Your task to perform on an android device: Show me popular videos on Youtube Image 0: 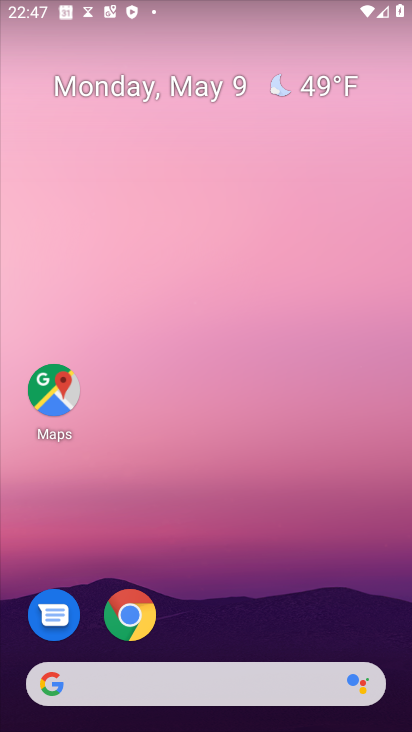
Step 0: drag from (177, 536) to (170, 103)
Your task to perform on an android device: Show me popular videos on Youtube Image 1: 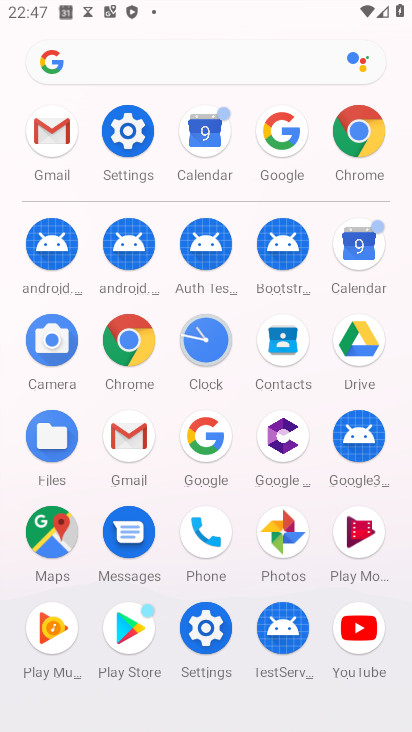
Step 1: click (352, 626)
Your task to perform on an android device: Show me popular videos on Youtube Image 2: 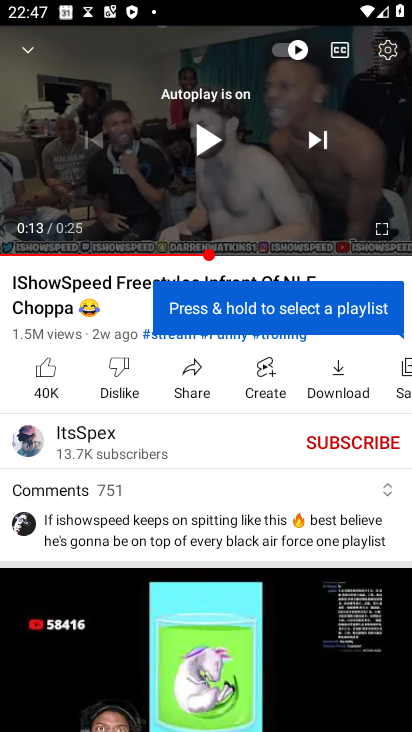
Step 2: click (26, 50)
Your task to perform on an android device: Show me popular videos on Youtube Image 3: 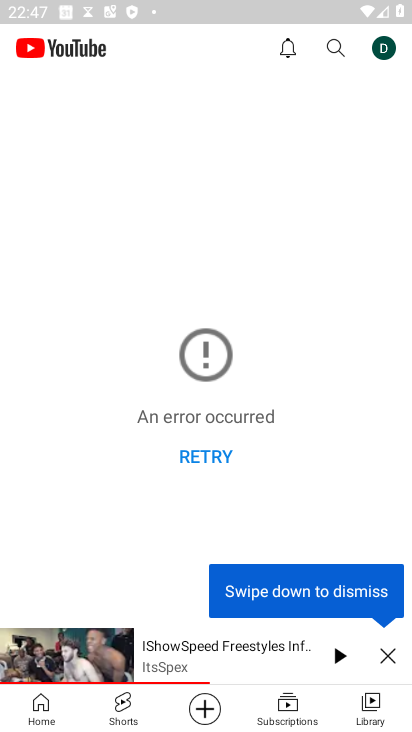
Step 3: click (391, 661)
Your task to perform on an android device: Show me popular videos on Youtube Image 4: 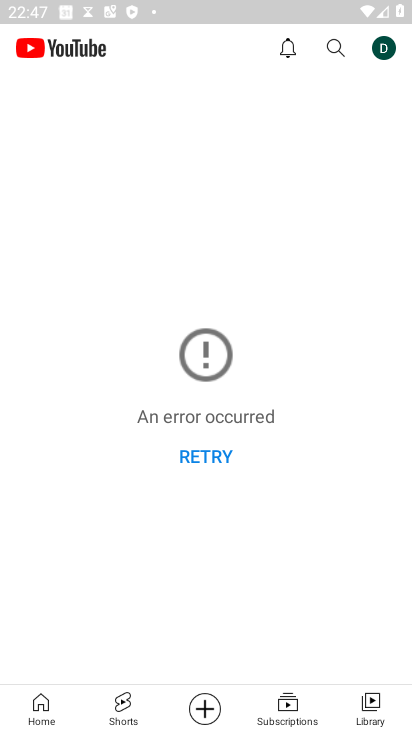
Step 4: click (118, 709)
Your task to perform on an android device: Show me popular videos on Youtube Image 5: 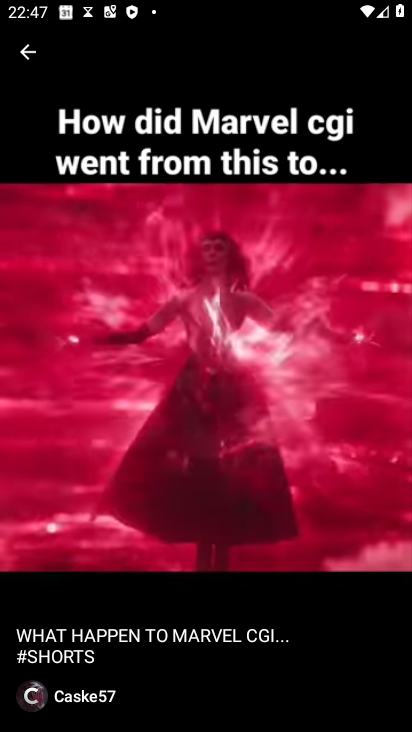
Step 5: click (20, 46)
Your task to perform on an android device: Show me popular videos on Youtube Image 6: 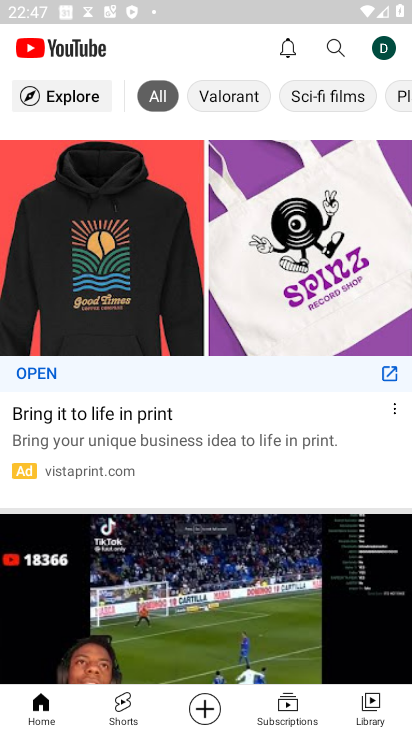
Step 6: click (42, 716)
Your task to perform on an android device: Show me popular videos on Youtube Image 7: 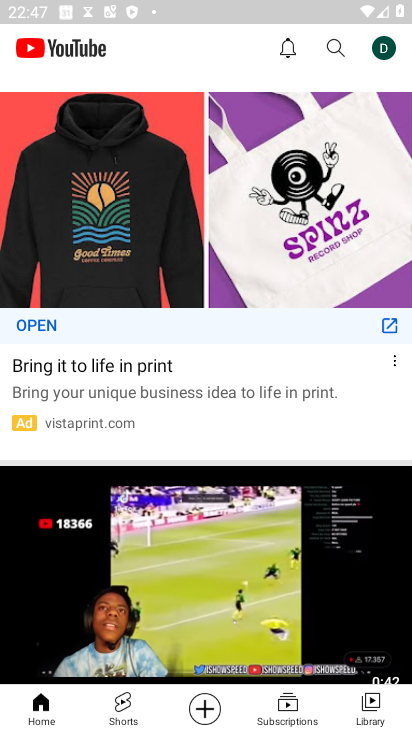
Step 7: click (371, 713)
Your task to perform on an android device: Show me popular videos on Youtube Image 8: 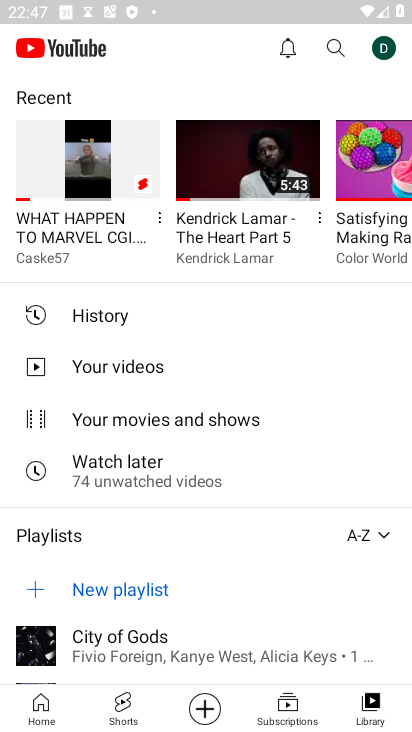
Step 8: task complete